Your task to perform on an android device: change timer sound Image 0: 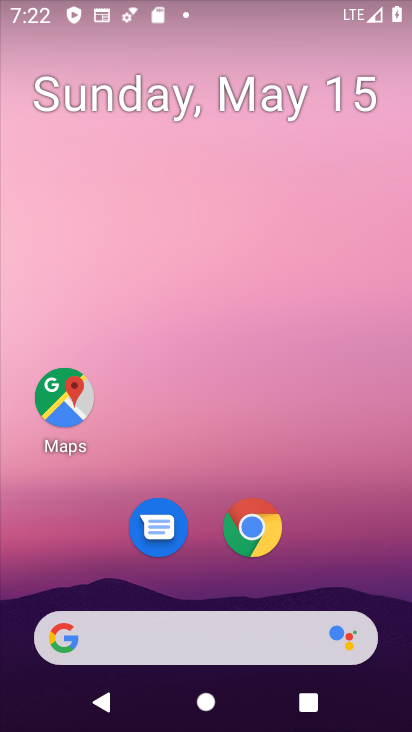
Step 0: drag from (322, 491) to (303, 68)
Your task to perform on an android device: change timer sound Image 1: 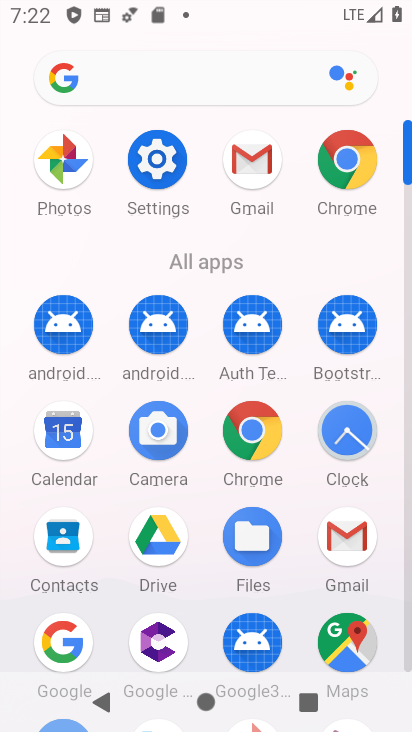
Step 1: click (147, 151)
Your task to perform on an android device: change timer sound Image 2: 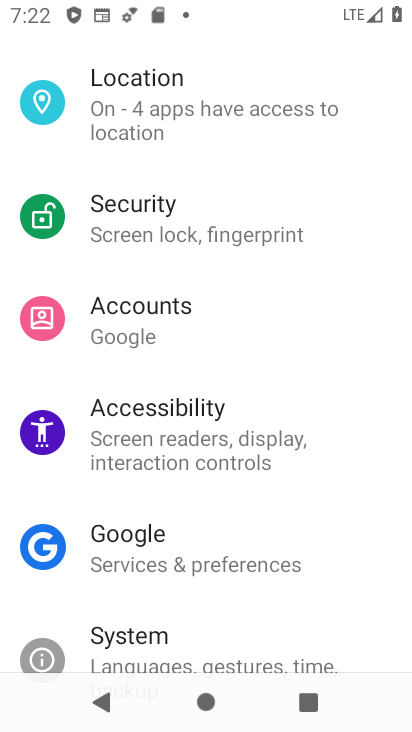
Step 2: drag from (184, 212) to (184, 586)
Your task to perform on an android device: change timer sound Image 3: 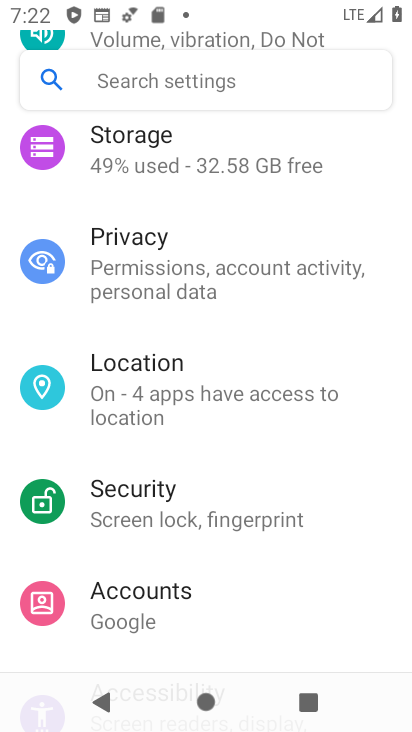
Step 3: drag from (198, 317) to (202, 613)
Your task to perform on an android device: change timer sound Image 4: 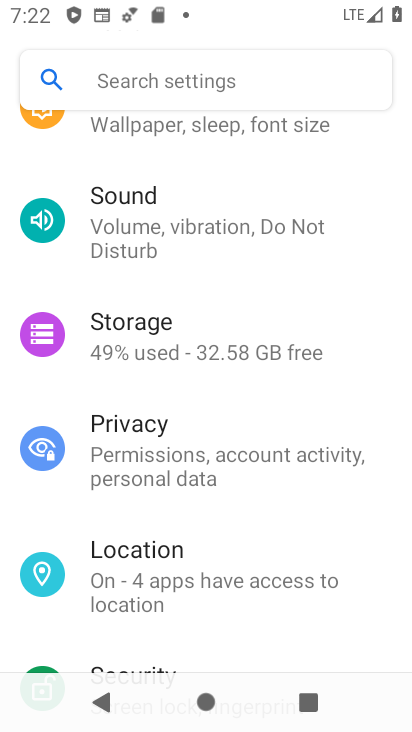
Step 4: click (206, 214)
Your task to perform on an android device: change timer sound Image 5: 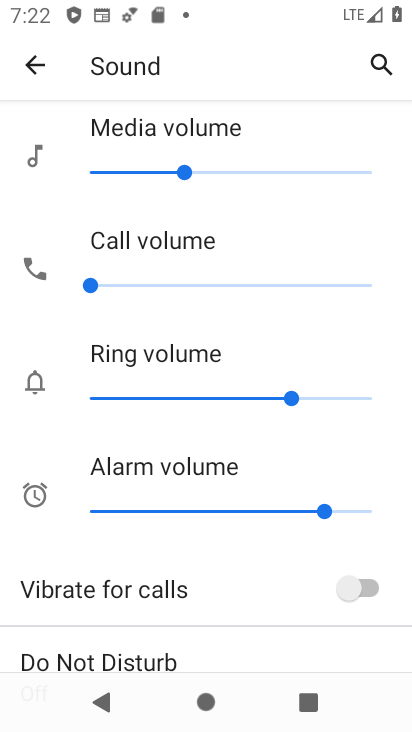
Step 5: task complete